Your task to perform on an android device: Open settings on Google Maps Image 0: 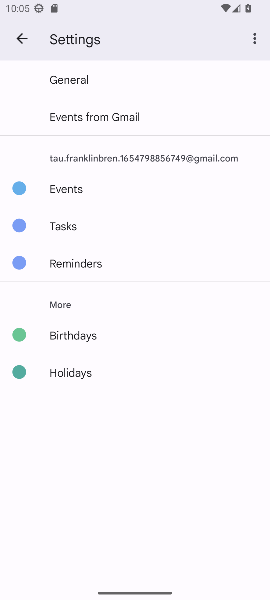
Step 0: press home button
Your task to perform on an android device: Open settings on Google Maps Image 1: 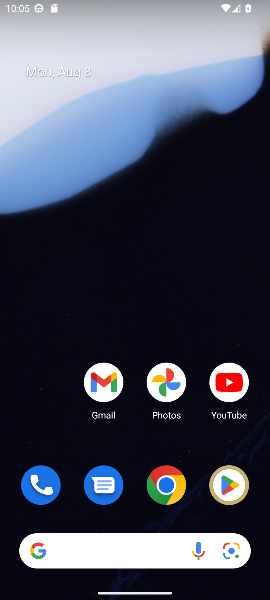
Step 1: drag from (200, 449) to (212, 50)
Your task to perform on an android device: Open settings on Google Maps Image 2: 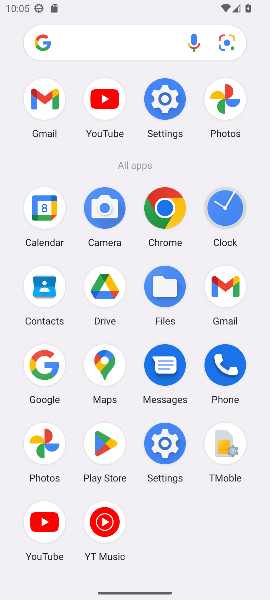
Step 2: click (168, 440)
Your task to perform on an android device: Open settings on Google Maps Image 3: 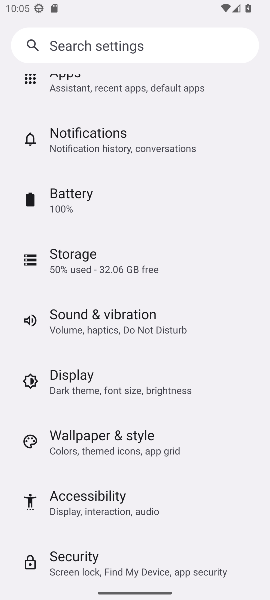
Step 3: press home button
Your task to perform on an android device: Open settings on Google Maps Image 4: 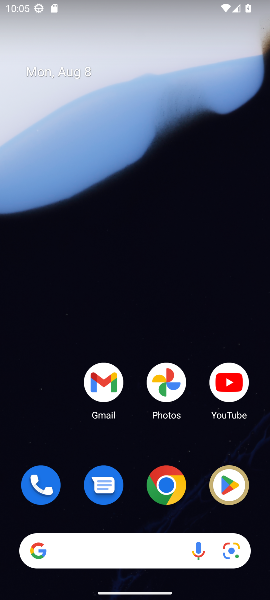
Step 4: drag from (188, 447) to (184, 48)
Your task to perform on an android device: Open settings on Google Maps Image 5: 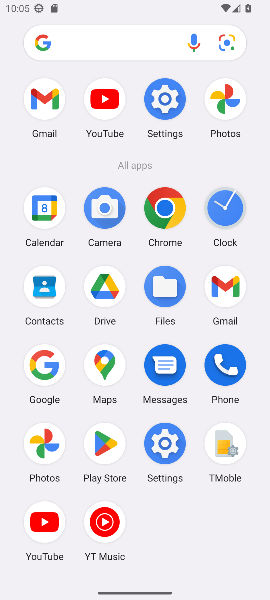
Step 5: click (99, 357)
Your task to perform on an android device: Open settings on Google Maps Image 6: 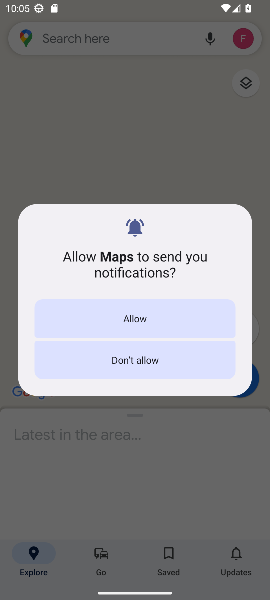
Step 6: click (177, 316)
Your task to perform on an android device: Open settings on Google Maps Image 7: 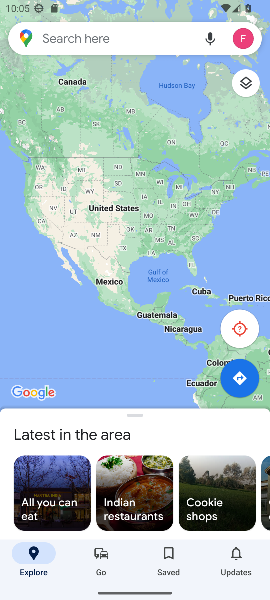
Step 7: task complete